Your task to perform on an android device: toggle translation in the chrome app Image 0: 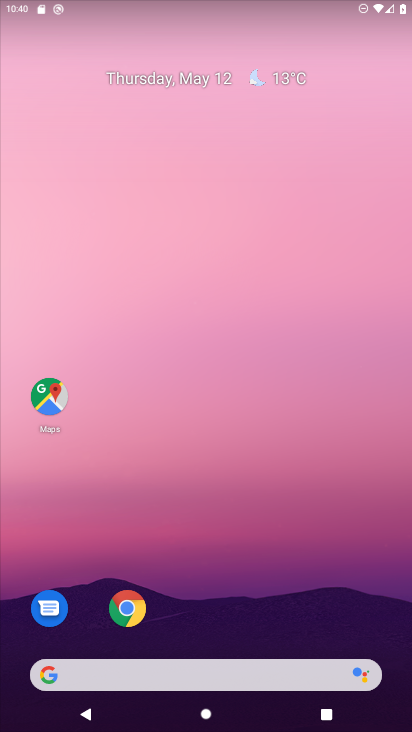
Step 0: drag from (256, 558) to (360, 88)
Your task to perform on an android device: toggle translation in the chrome app Image 1: 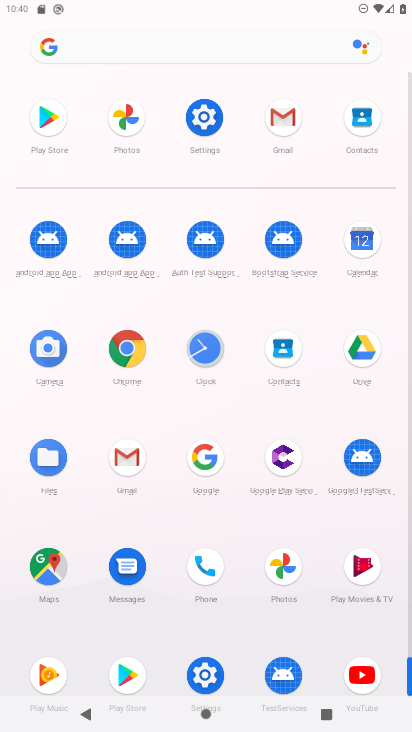
Step 1: click (134, 349)
Your task to perform on an android device: toggle translation in the chrome app Image 2: 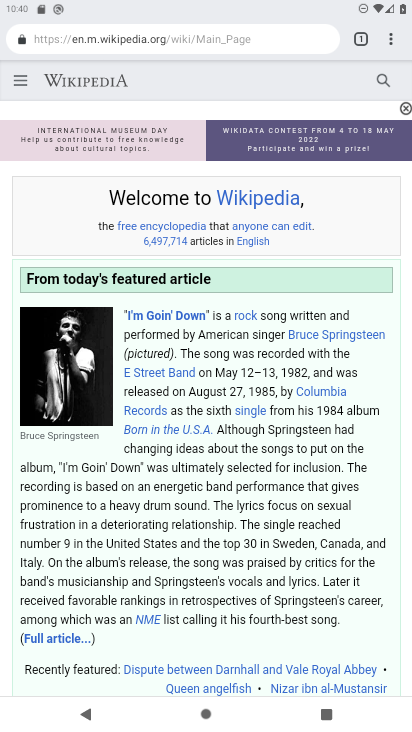
Step 2: click (386, 40)
Your task to perform on an android device: toggle translation in the chrome app Image 3: 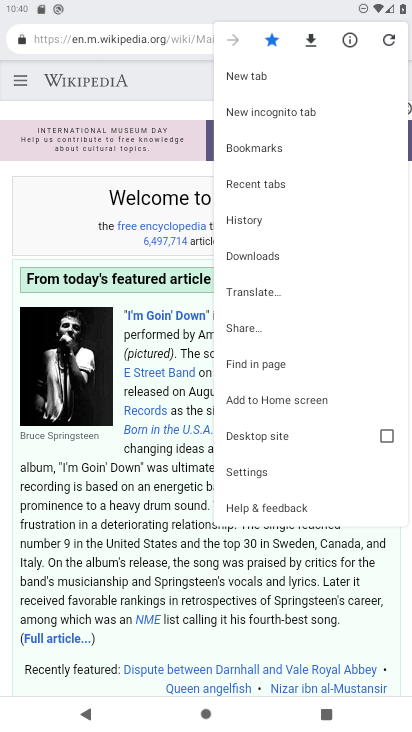
Step 3: click (256, 470)
Your task to perform on an android device: toggle translation in the chrome app Image 4: 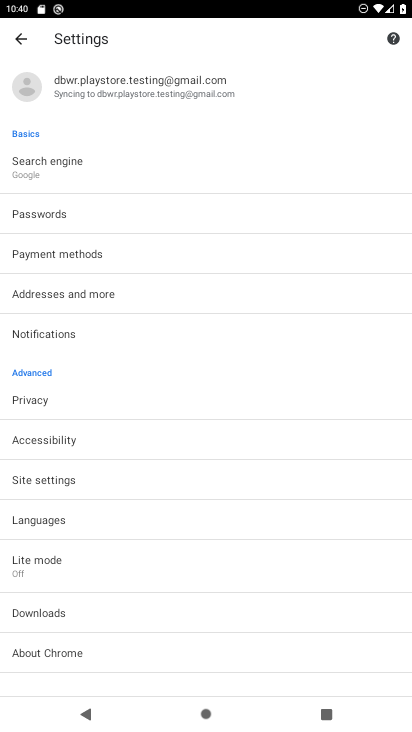
Step 4: click (94, 508)
Your task to perform on an android device: toggle translation in the chrome app Image 5: 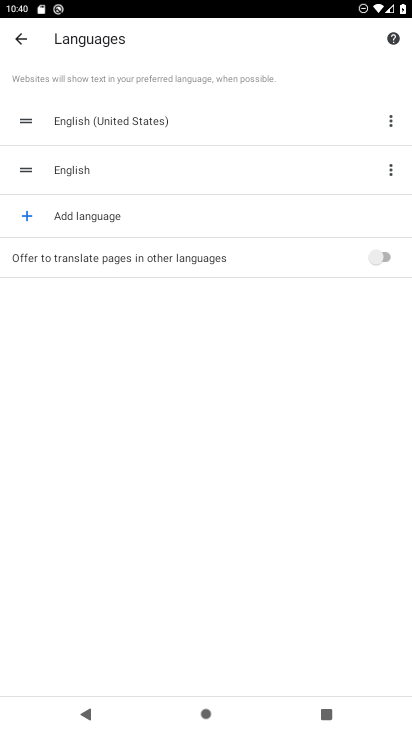
Step 5: click (375, 262)
Your task to perform on an android device: toggle translation in the chrome app Image 6: 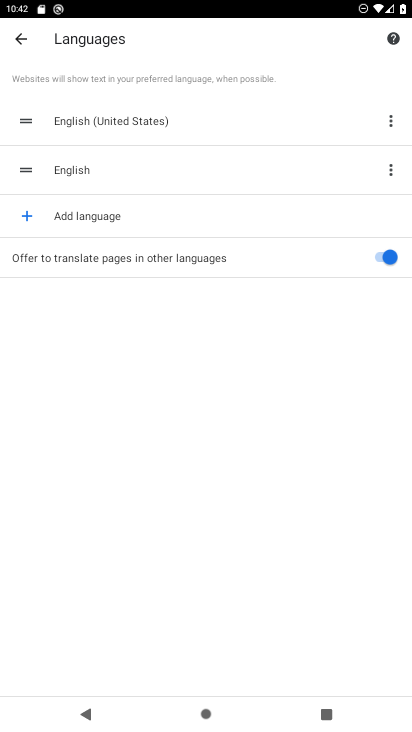
Step 6: task complete